Your task to perform on an android device: Search for Italian restaurants on Maps Image 0: 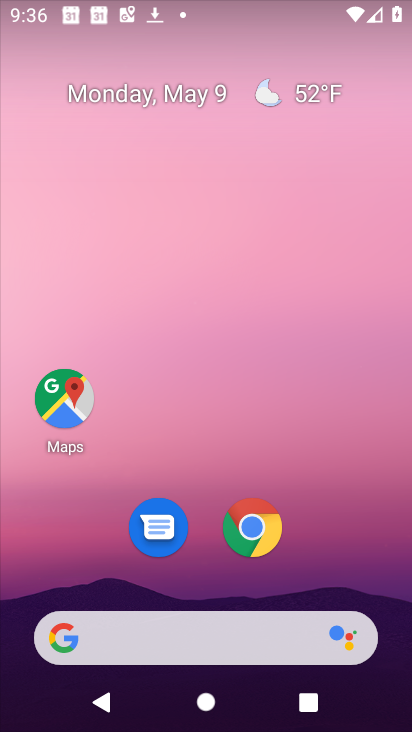
Step 0: drag from (203, 569) to (185, 143)
Your task to perform on an android device: Search for Italian restaurants on Maps Image 1: 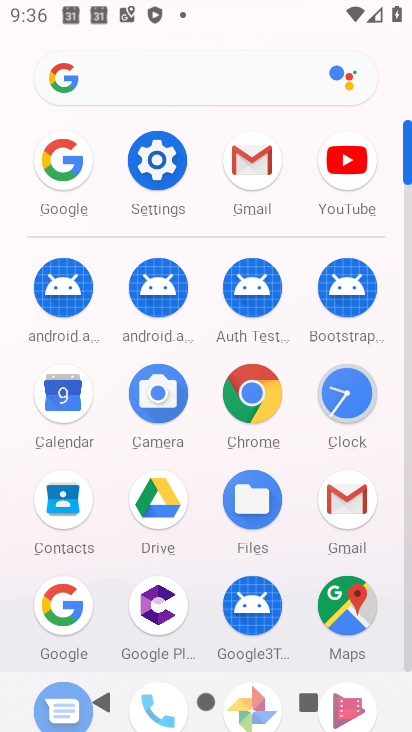
Step 1: click (341, 604)
Your task to perform on an android device: Search for Italian restaurants on Maps Image 2: 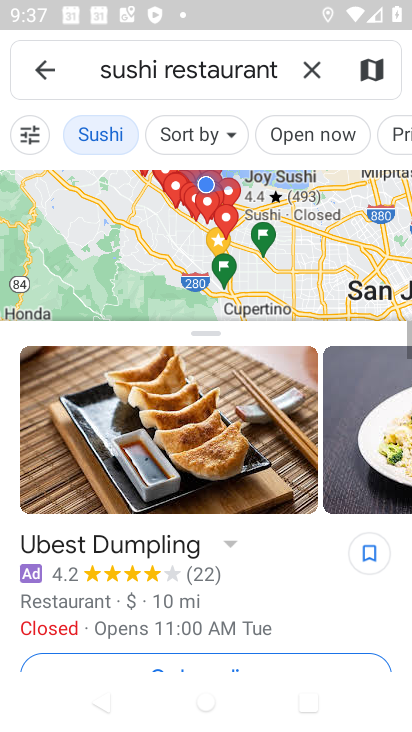
Step 2: click (302, 65)
Your task to perform on an android device: Search for Italian restaurants on Maps Image 3: 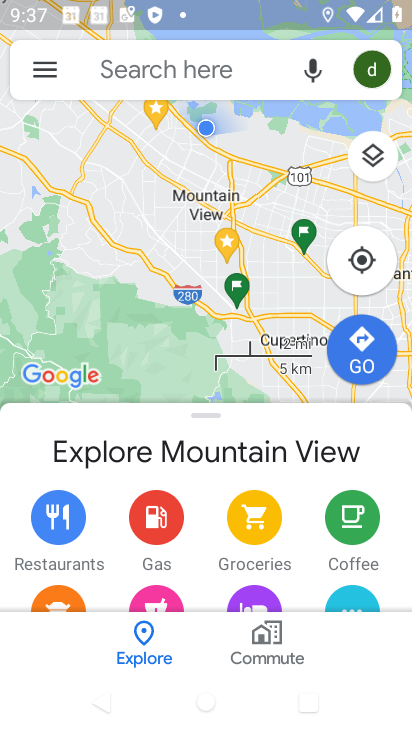
Step 3: click (187, 48)
Your task to perform on an android device: Search for Italian restaurants on Maps Image 4: 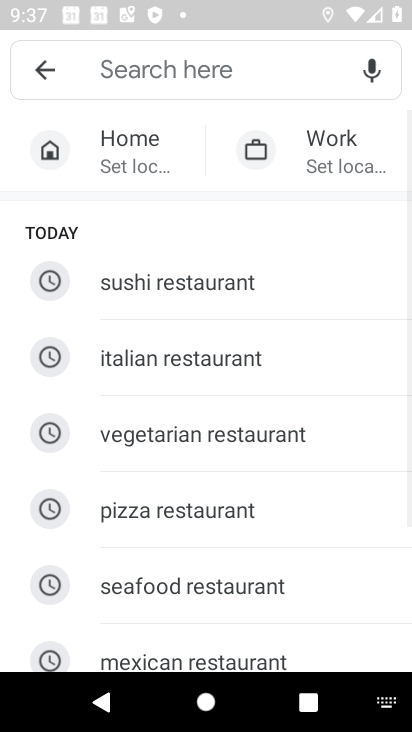
Step 4: click (144, 360)
Your task to perform on an android device: Search for Italian restaurants on Maps Image 5: 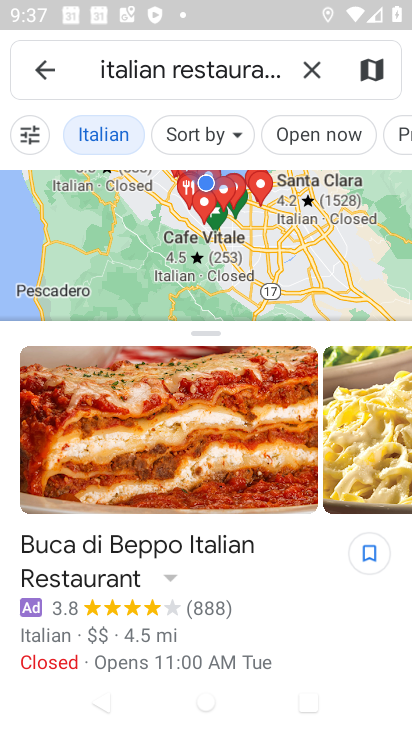
Step 5: task complete